Your task to perform on an android device: Toggle the flashlight Image 0: 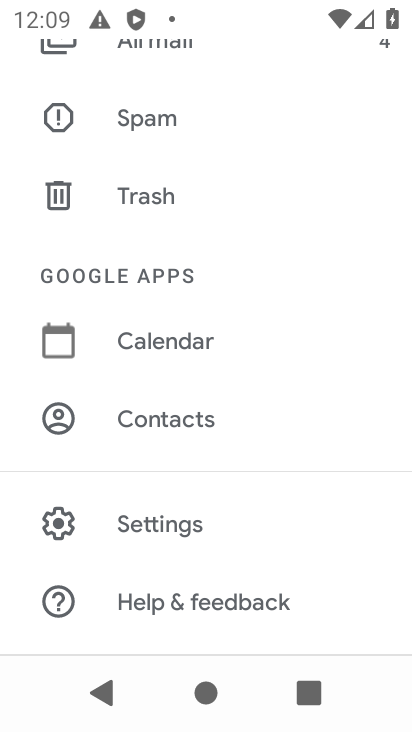
Step 0: task impossible